Your task to perform on an android device: set an alarm Image 0: 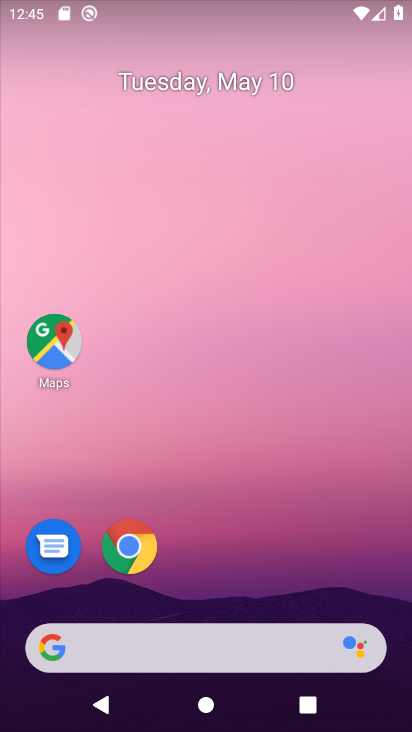
Step 0: drag from (296, 545) to (289, 149)
Your task to perform on an android device: set an alarm Image 1: 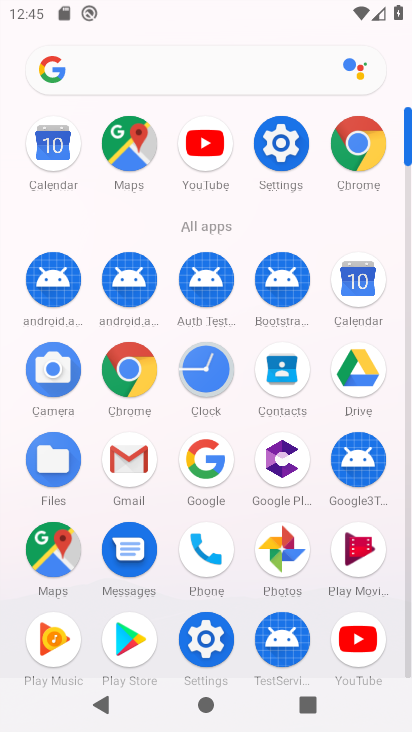
Step 1: click (204, 357)
Your task to perform on an android device: set an alarm Image 2: 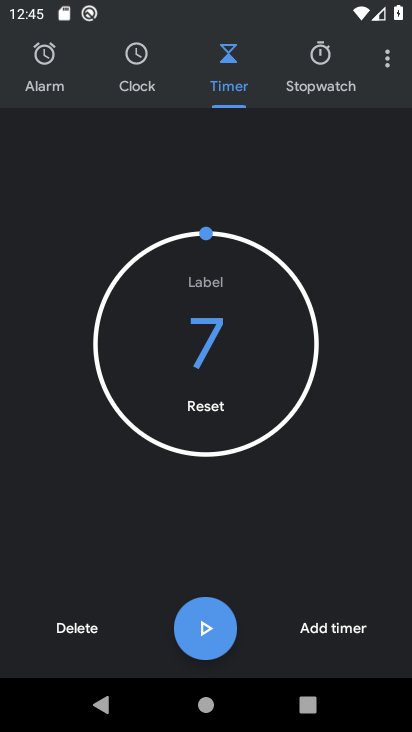
Step 2: click (82, 77)
Your task to perform on an android device: set an alarm Image 3: 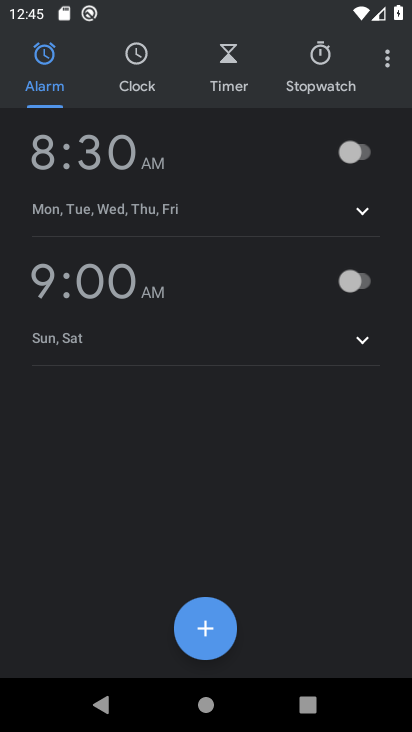
Step 3: click (206, 629)
Your task to perform on an android device: set an alarm Image 4: 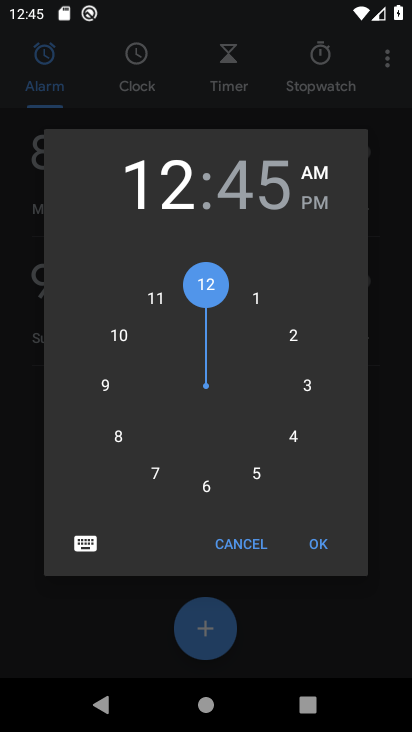
Step 4: click (313, 525)
Your task to perform on an android device: set an alarm Image 5: 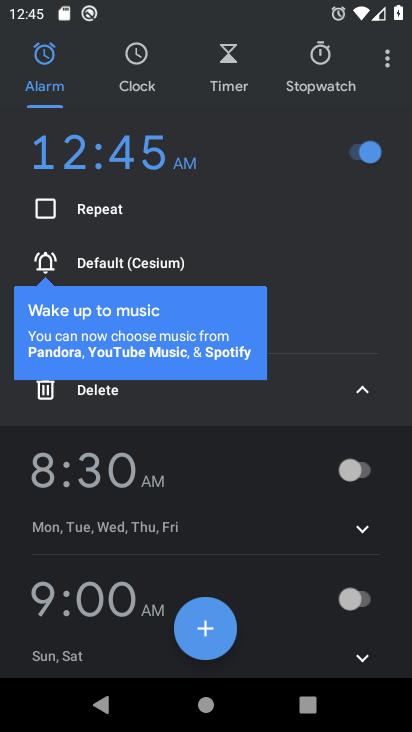
Step 5: task complete